Your task to perform on an android device: delete location history Image 0: 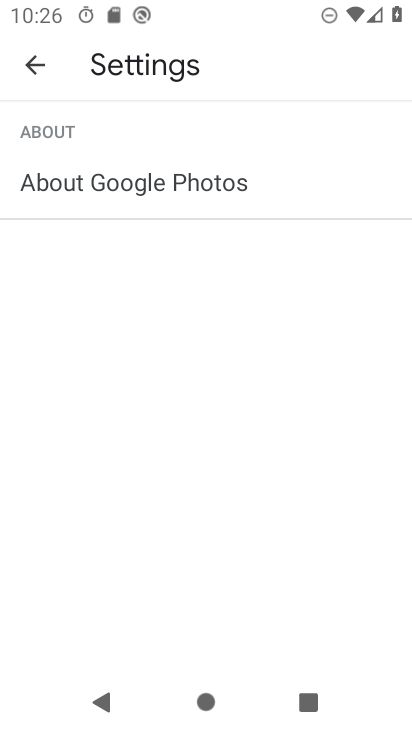
Step 0: press home button
Your task to perform on an android device: delete location history Image 1: 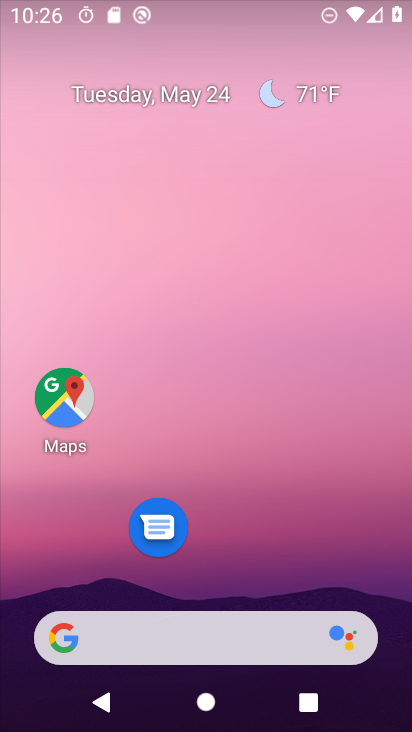
Step 1: drag from (245, 492) to (298, 65)
Your task to perform on an android device: delete location history Image 2: 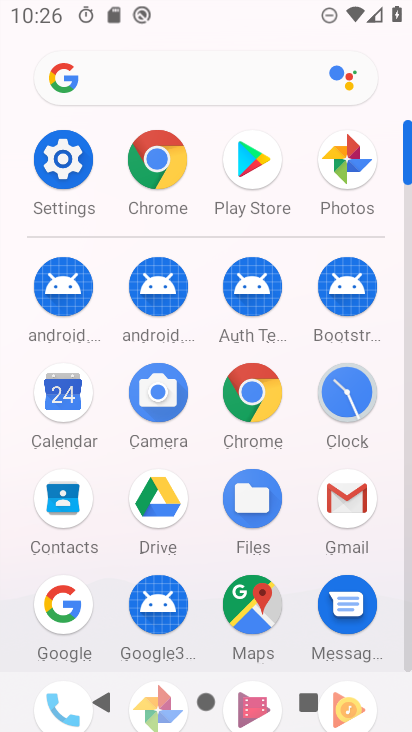
Step 2: click (60, 163)
Your task to perform on an android device: delete location history Image 3: 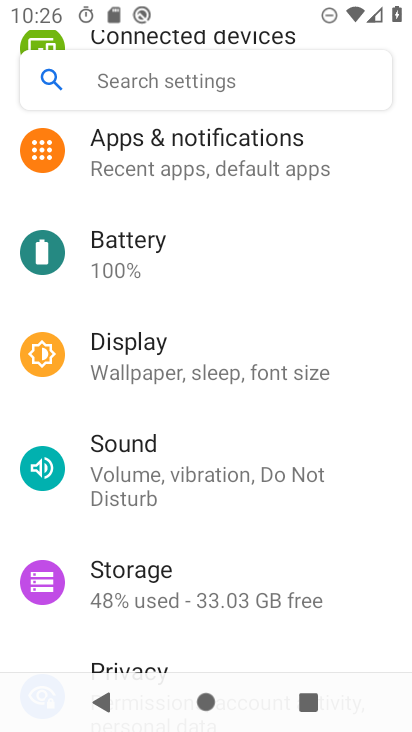
Step 3: drag from (173, 570) to (181, 178)
Your task to perform on an android device: delete location history Image 4: 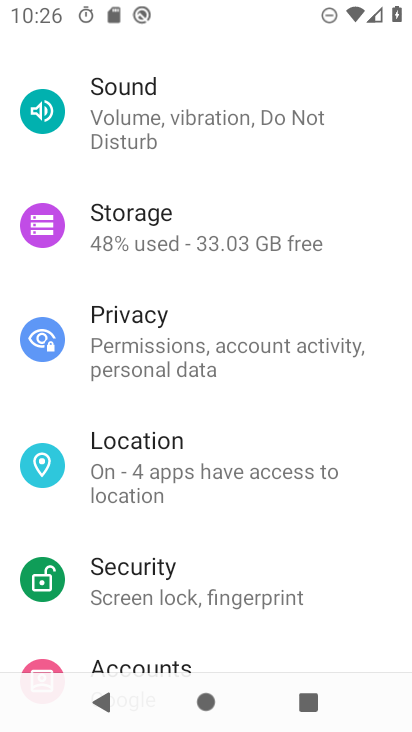
Step 4: click (195, 453)
Your task to perform on an android device: delete location history Image 5: 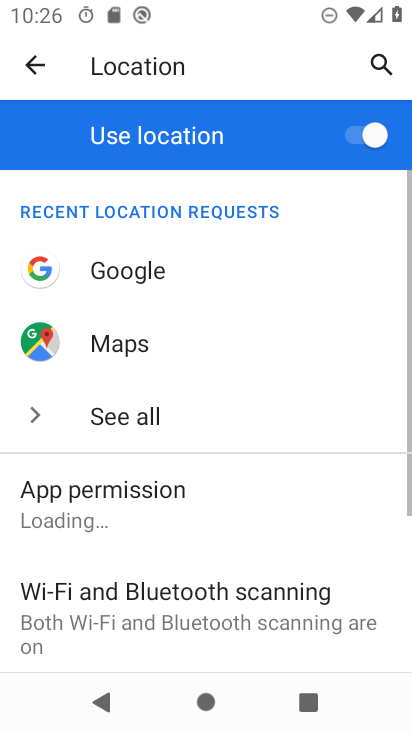
Step 5: drag from (222, 410) to (202, 110)
Your task to perform on an android device: delete location history Image 6: 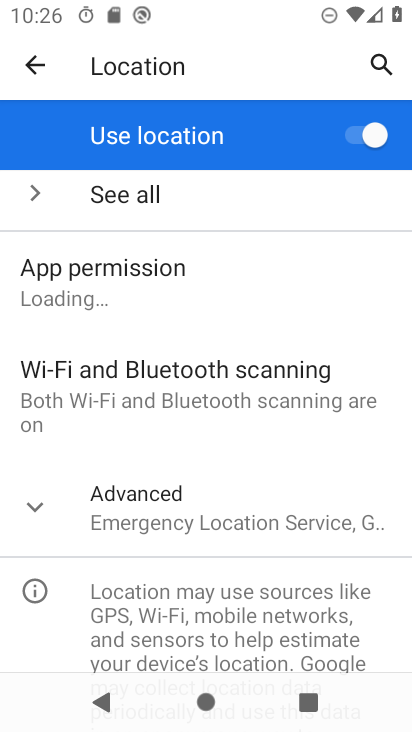
Step 6: click (155, 506)
Your task to perform on an android device: delete location history Image 7: 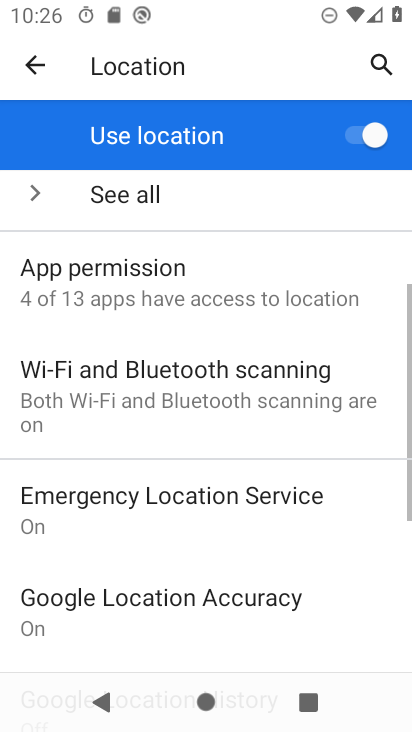
Step 7: drag from (285, 443) to (275, 157)
Your task to perform on an android device: delete location history Image 8: 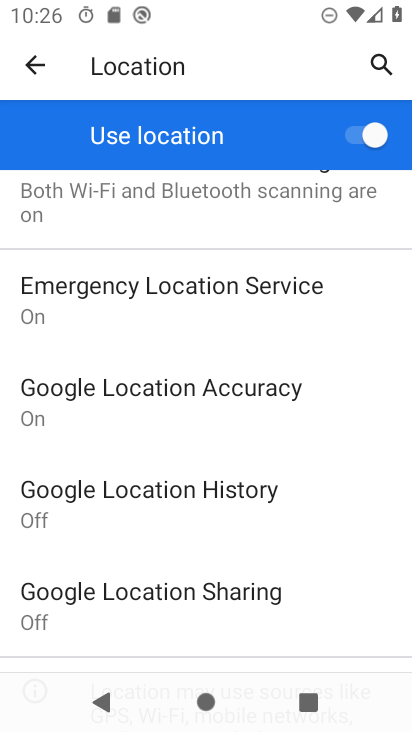
Step 8: click (119, 499)
Your task to perform on an android device: delete location history Image 9: 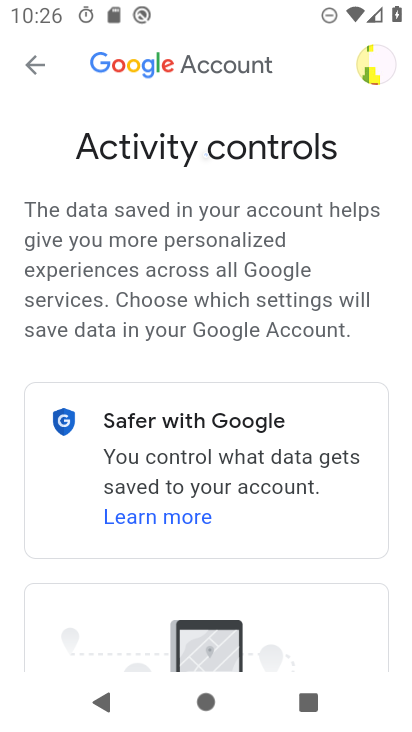
Step 9: drag from (305, 566) to (299, 8)
Your task to perform on an android device: delete location history Image 10: 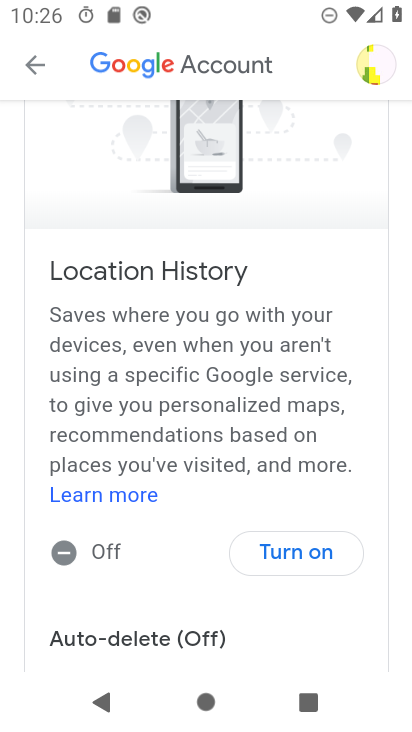
Step 10: drag from (212, 575) to (216, 394)
Your task to perform on an android device: delete location history Image 11: 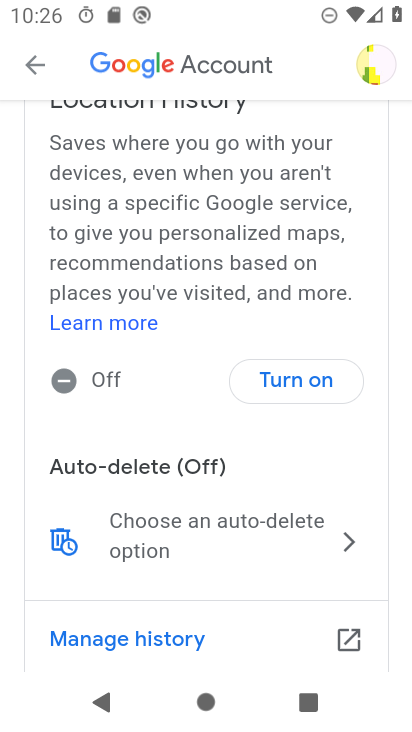
Step 11: drag from (237, 565) to (242, 457)
Your task to perform on an android device: delete location history Image 12: 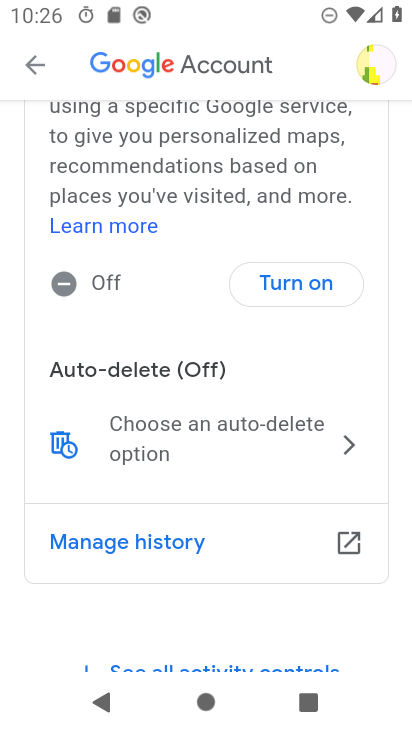
Step 12: click (68, 448)
Your task to perform on an android device: delete location history Image 13: 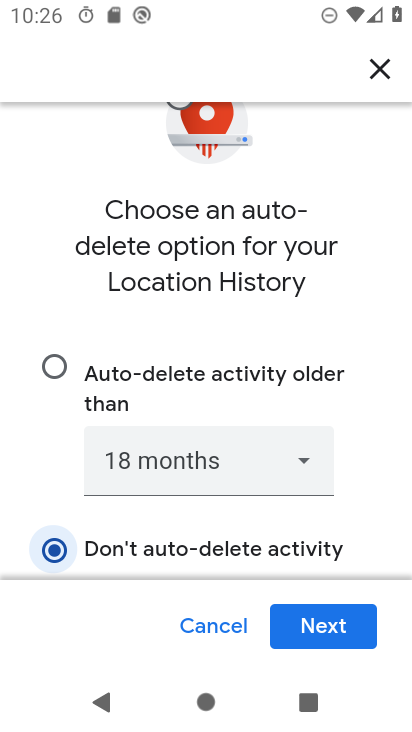
Step 13: click (315, 635)
Your task to perform on an android device: delete location history Image 14: 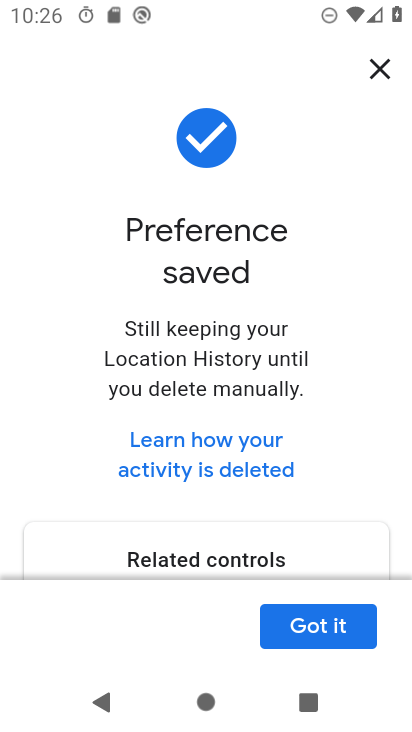
Step 14: click (314, 635)
Your task to perform on an android device: delete location history Image 15: 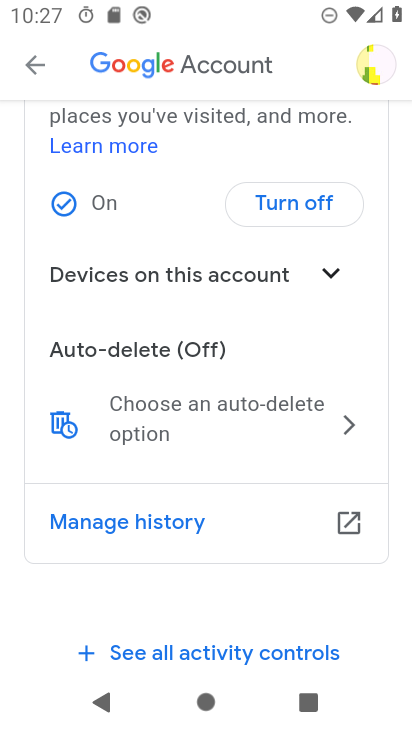
Step 15: task complete